Your task to perform on an android device: Open settings Image 0: 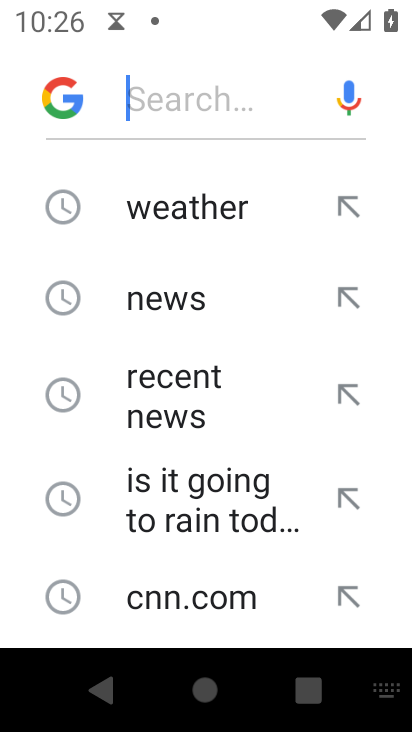
Step 0: press home button
Your task to perform on an android device: Open settings Image 1: 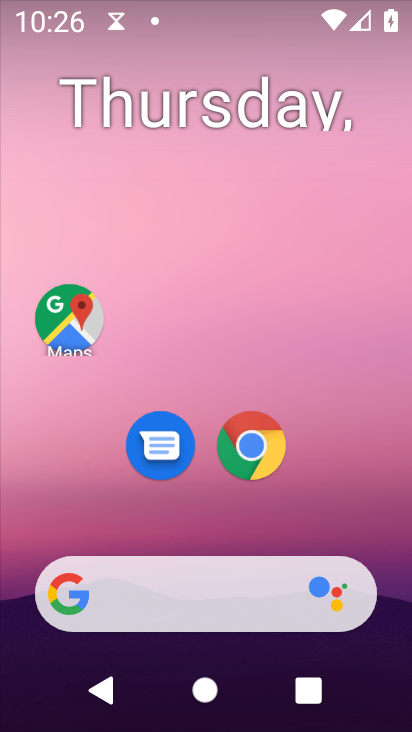
Step 1: drag from (220, 724) to (235, 227)
Your task to perform on an android device: Open settings Image 2: 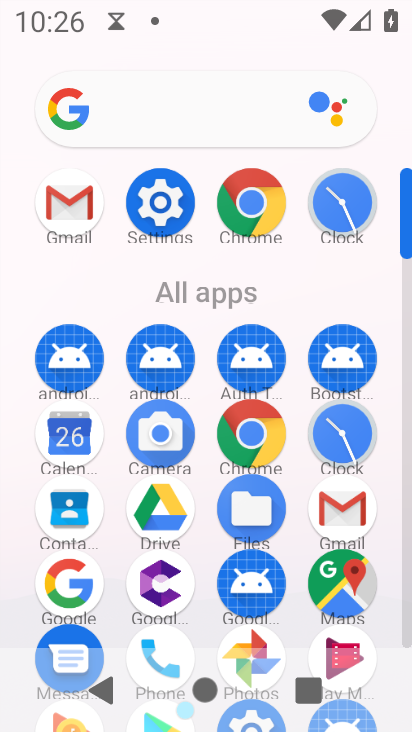
Step 2: click (157, 199)
Your task to perform on an android device: Open settings Image 3: 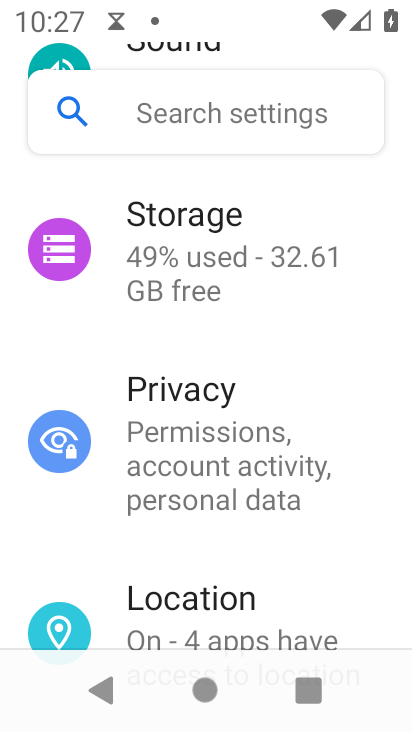
Step 3: task complete